Your task to perform on an android device: turn pop-ups off in chrome Image 0: 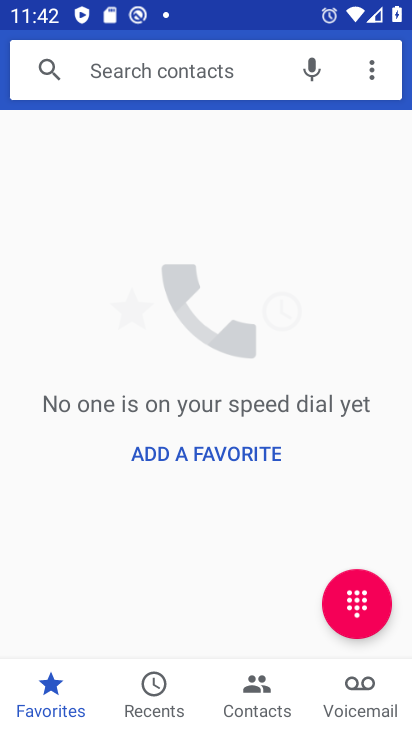
Step 0: press home button
Your task to perform on an android device: turn pop-ups off in chrome Image 1: 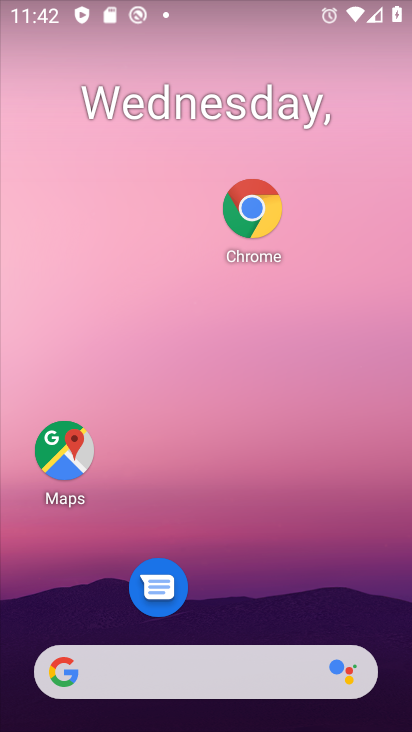
Step 1: drag from (231, 619) to (234, 6)
Your task to perform on an android device: turn pop-ups off in chrome Image 2: 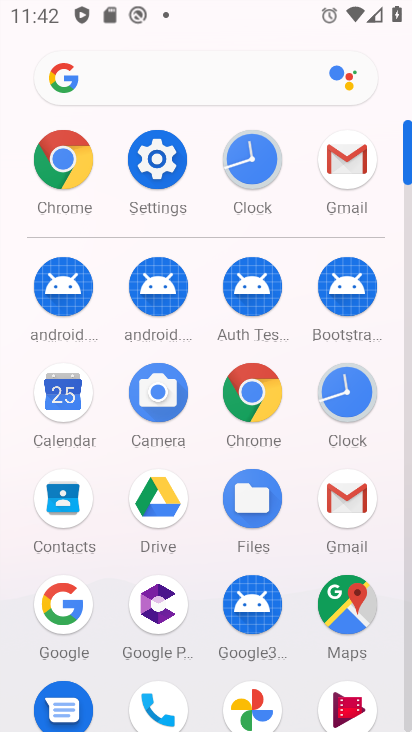
Step 2: click (67, 210)
Your task to perform on an android device: turn pop-ups off in chrome Image 3: 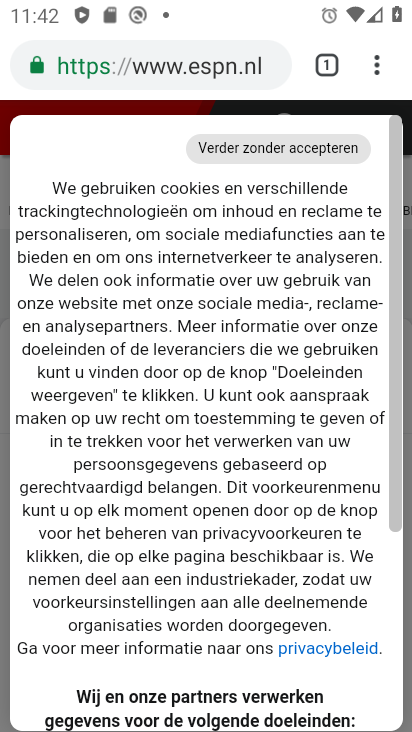
Step 3: click (377, 64)
Your task to perform on an android device: turn pop-ups off in chrome Image 4: 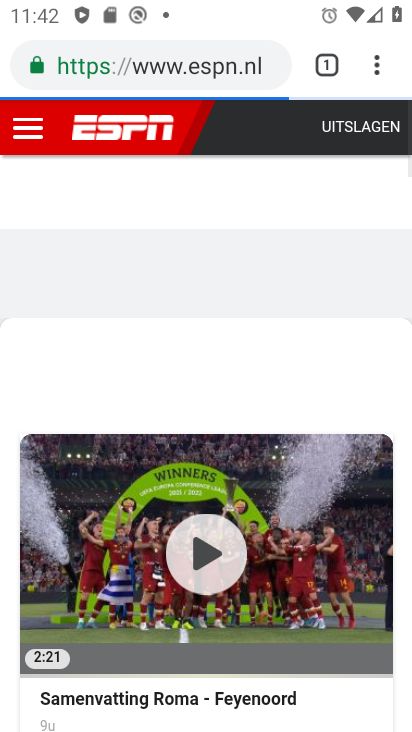
Step 4: click (376, 66)
Your task to perform on an android device: turn pop-ups off in chrome Image 5: 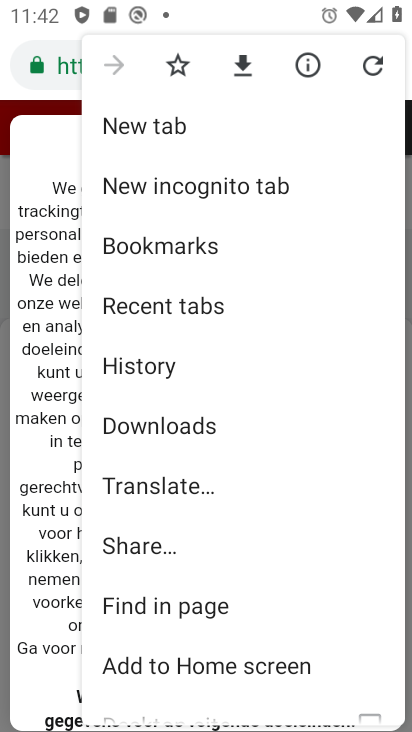
Step 5: drag from (234, 589) to (233, 277)
Your task to perform on an android device: turn pop-ups off in chrome Image 6: 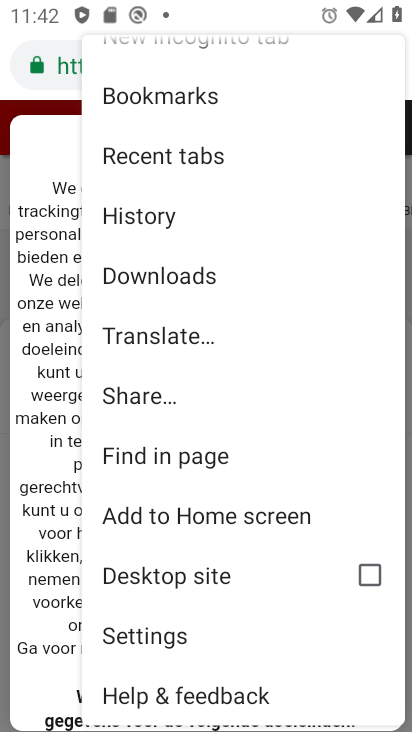
Step 6: click (145, 636)
Your task to perform on an android device: turn pop-ups off in chrome Image 7: 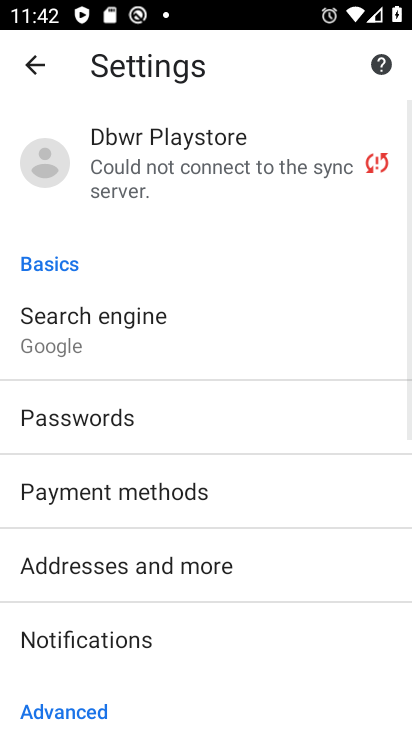
Step 7: drag from (145, 636) to (165, 292)
Your task to perform on an android device: turn pop-ups off in chrome Image 8: 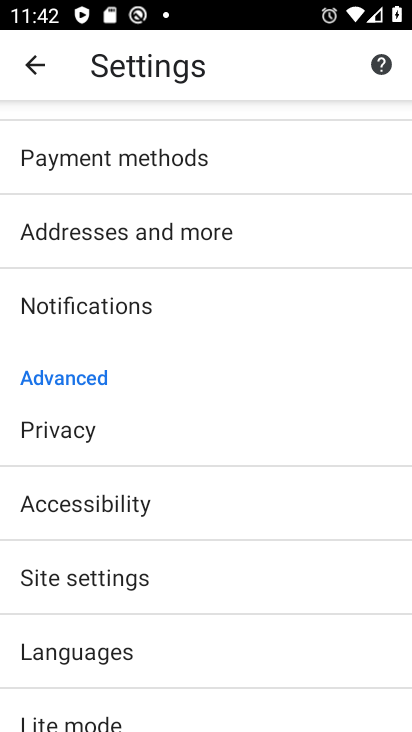
Step 8: drag from (144, 650) to (228, 302)
Your task to perform on an android device: turn pop-ups off in chrome Image 9: 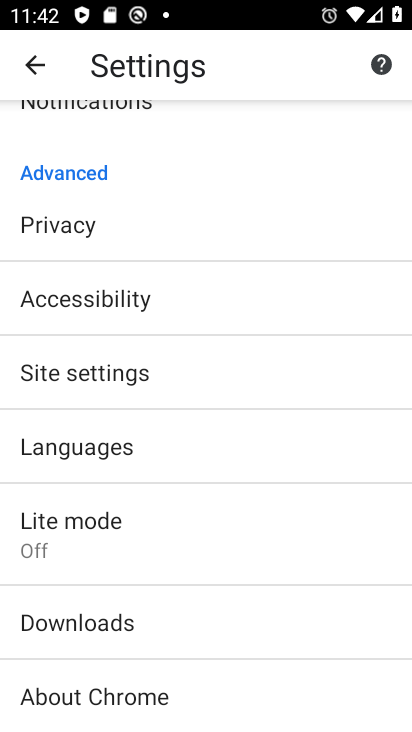
Step 9: drag from (125, 644) to (175, 303)
Your task to perform on an android device: turn pop-ups off in chrome Image 10: 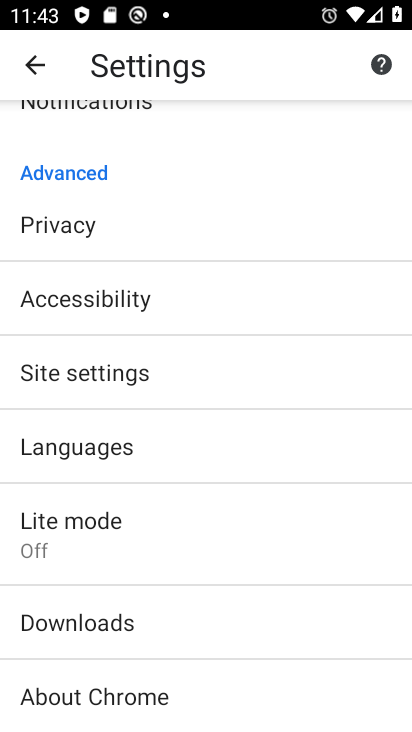
Step 10: click (87, 373)
Your task to perform on an android device: turn pop-ups off in chrome Image 11: 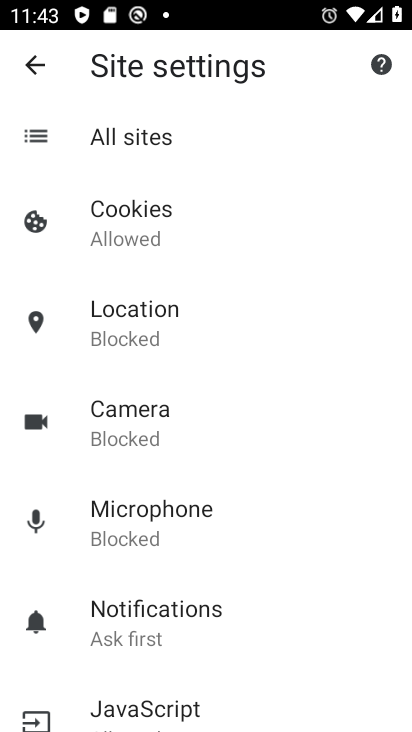
Step 11: drag from (206, 646) to (213, 254)
Your task to perform on an android device: turn pop-ups off in chrome Image 12: 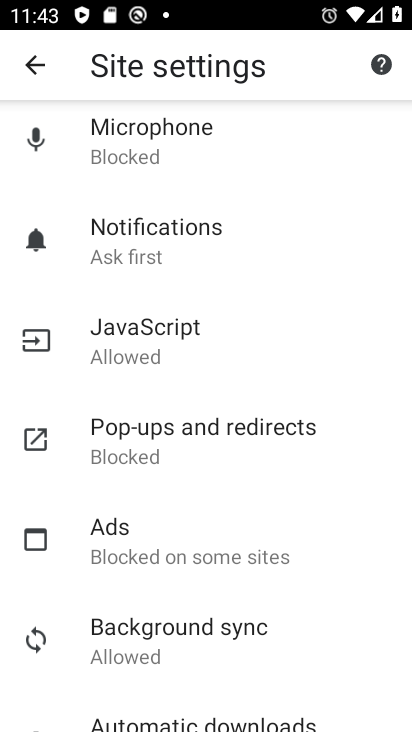
Step 12: drag from (166, 641) to (163, 318)
Your task to perform on an android device: turn pop-ups off in chrome Image 13: 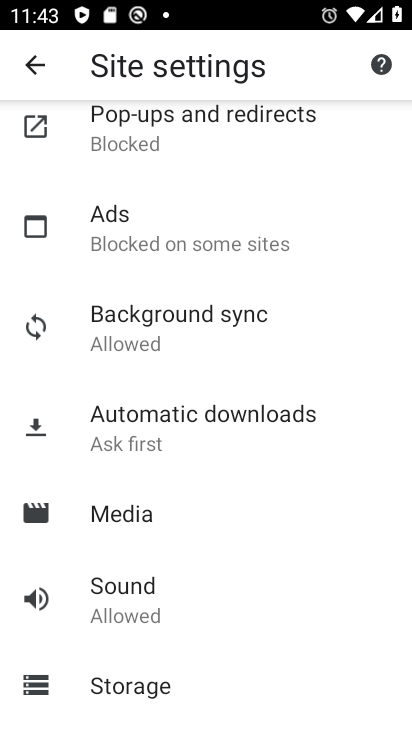
Step 13: click (126, 145)
Your task to perform on an android device: turn pop-ups off in chrome Image 14: 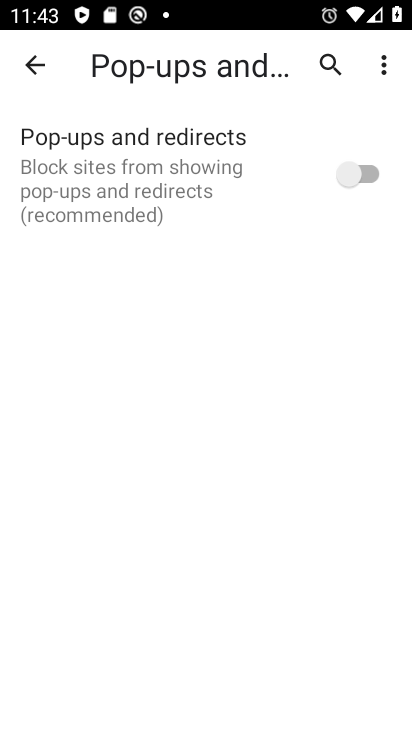
Step 14: task complete